Your task to perform on an android device: toggle airplane mode Image 0: 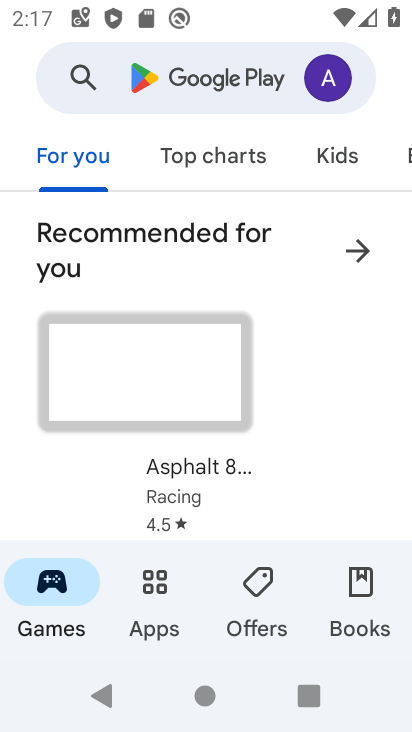
Step 0: press home button
Your task to perform on an android device: toggle airplane mode Image 1: 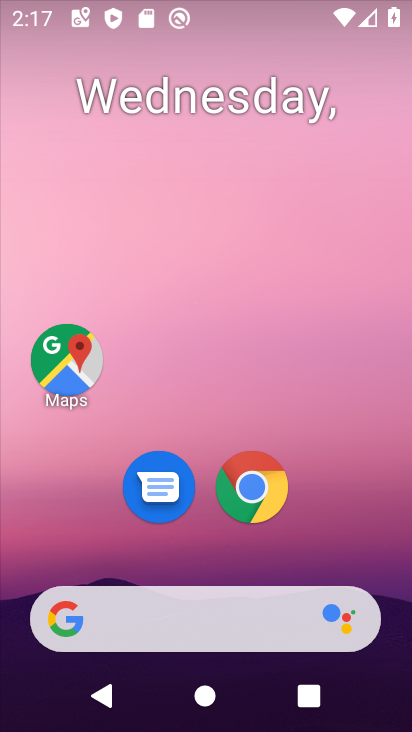
Step 1: click (398, 395)
Your task to perform on an android device: toggle airplane mode Image 2: 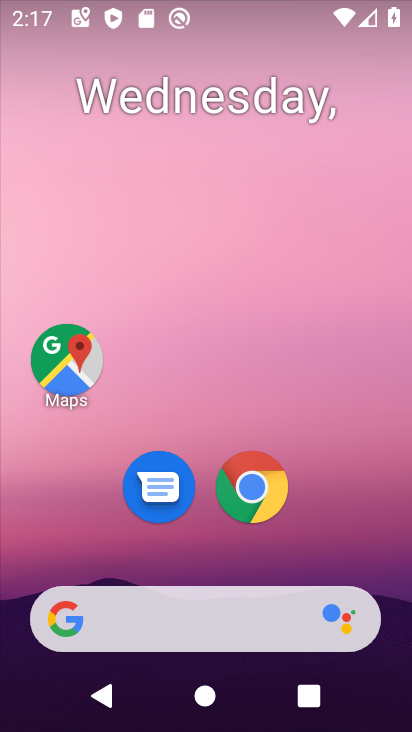
Step 2: drag from (34, 693) to (214, 148)
Your task to perform on an android device: toggle airplane mode Image 3: 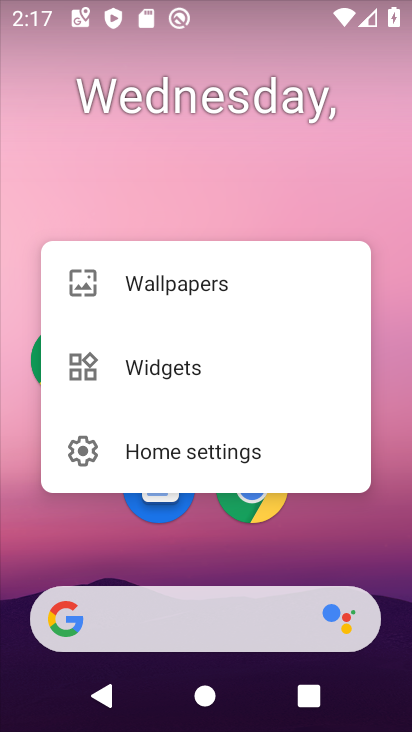
Step 3: click (52, 693)
Your task to perform on an android device: toggle airplane mode Image 4: 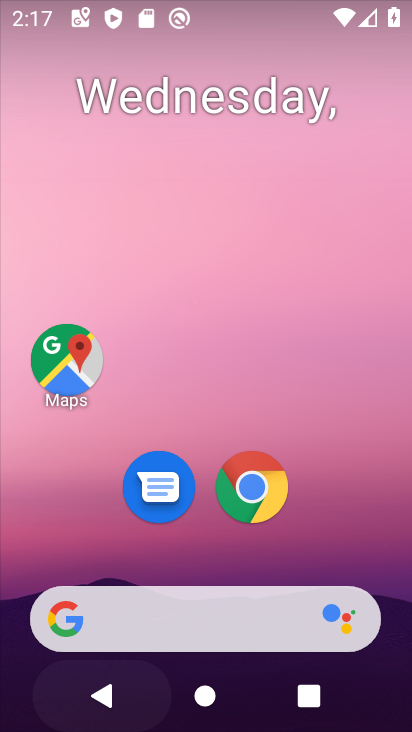
Step 4: drag from (52, 693) to (37, 59)
Your task to perform on an android device: toggle airplane mode Image 5: 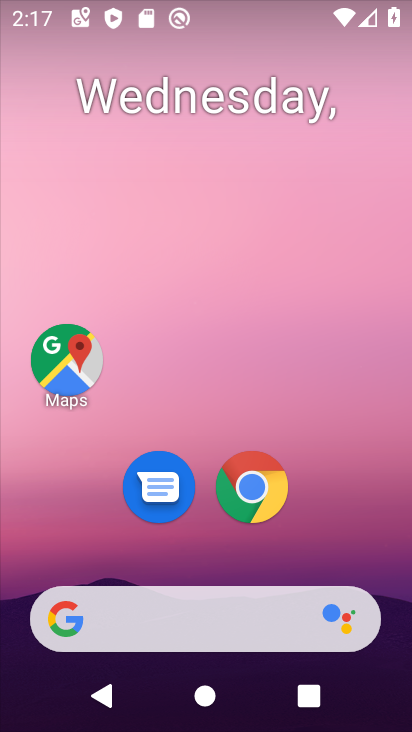
Step 5: drag from (32, 674) to (153, 165)
Your task to perform on an android device: toggle airplane mode Image 6: 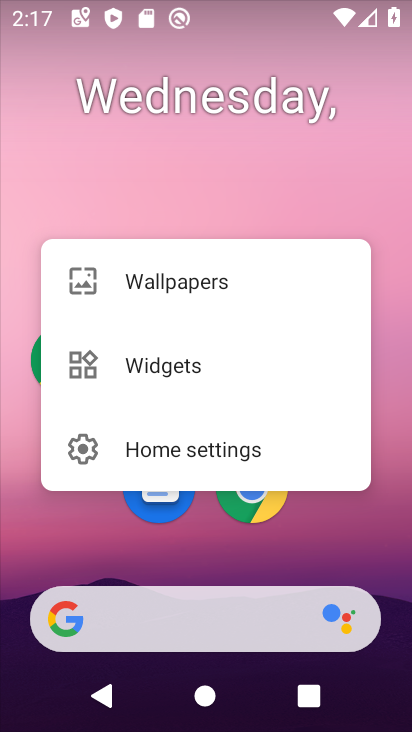
Step 6: click (29, 697)
Your task to perform on an android device: toggle airplane mode Image 7: 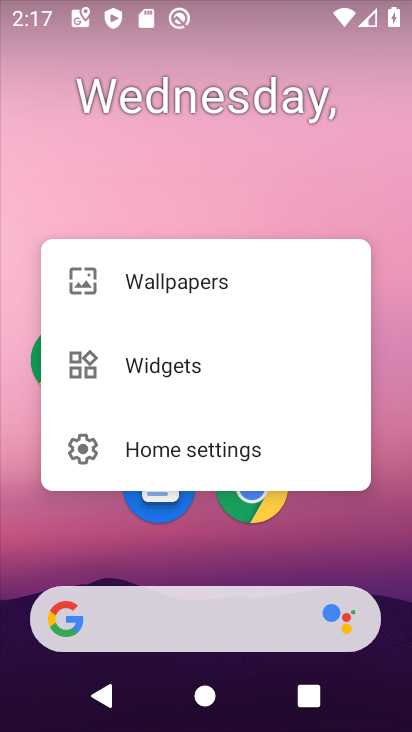
Step 7: drag from (29, 697) to (113, 144)
Your task to perform on an android device: toggle airplane mode Image 8: 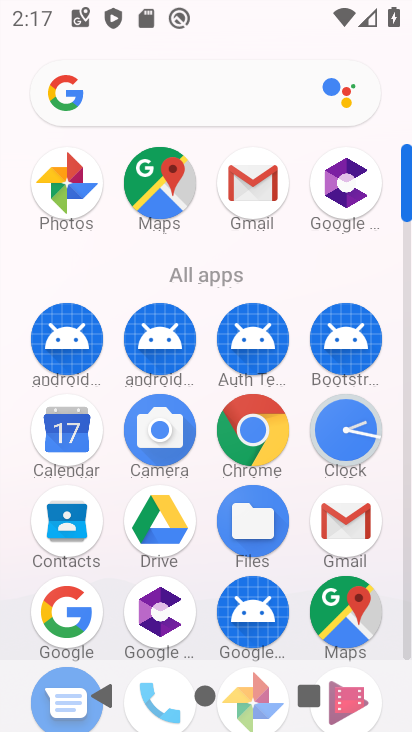
Step 8: drag from (1, 624) to (76, 167)
Your task to perform on an android device: toggle airplane mode Image 9: 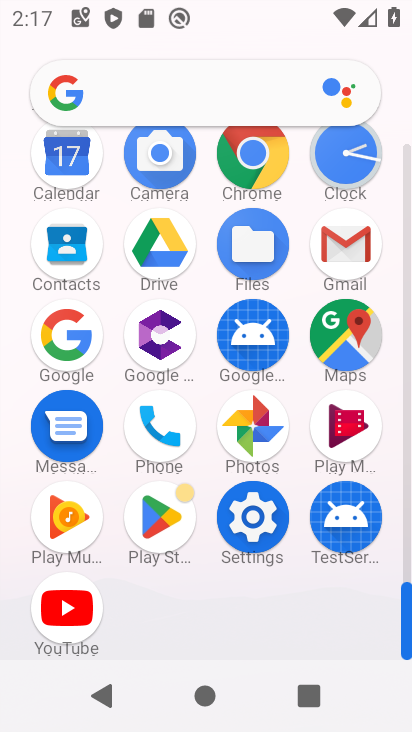
Step 9: click (237, 517)
Your task to perform on an android device: toggle airplane mode Image 10: 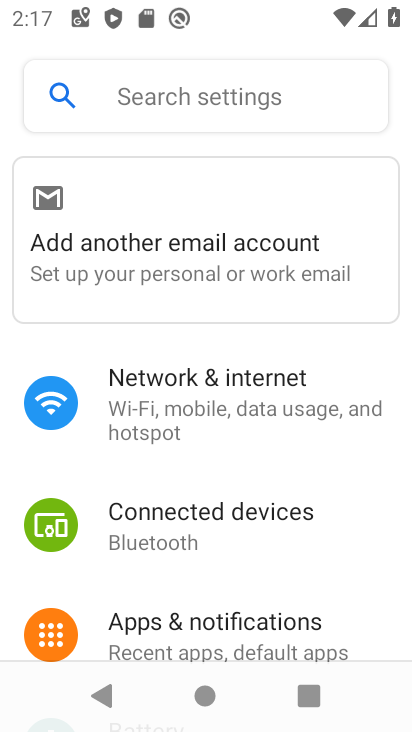
Step 10: click (223, 402)
Your task to perform on an android device: toggle airplane mode Image 11: 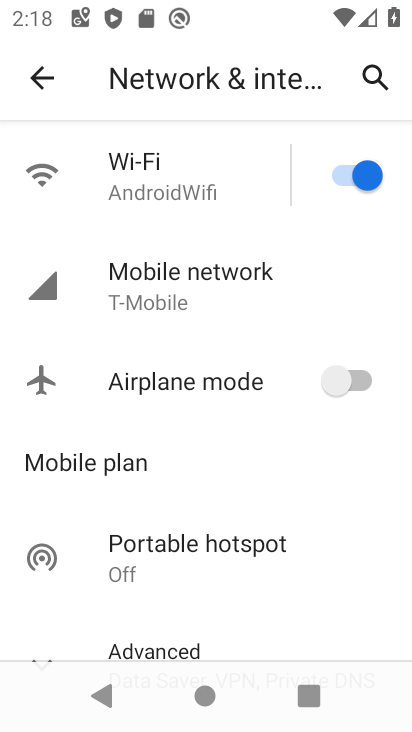
Step 11: task complete